Your task to perform on an android device: delete the emails in spam in the gmail app Image 0: 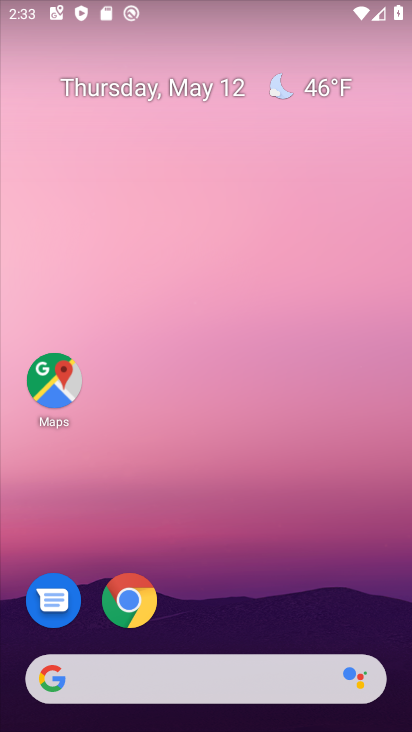
Step 0: drag from (238, 609) to (296, 218)
Your task to perform on an android device: delete the emails in spam in the gmail app Image 1: 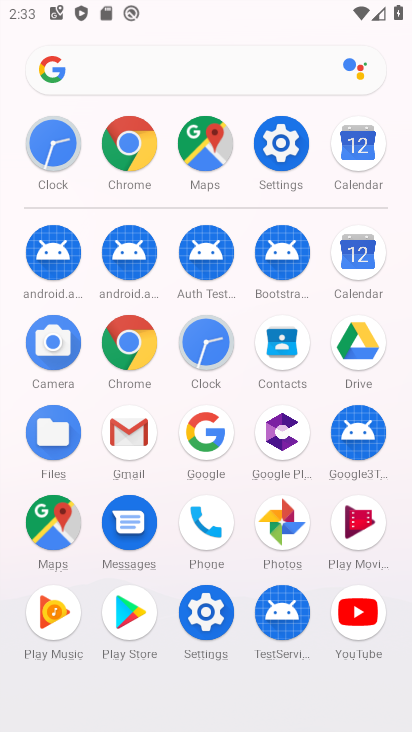
Step 1: click (147, 428)
Your task to perform on an android device: delete the emails in spam in the gmail app Image 2: 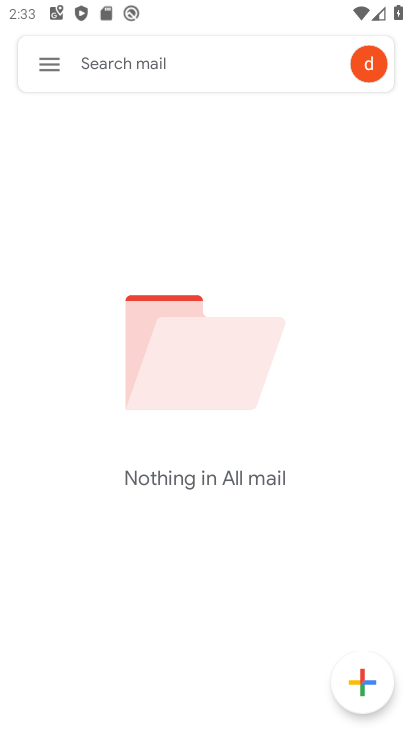
Step 2: click (66, 71)
Your task to perform on an android device: delete the emails in spam in the gmail app Image 3: 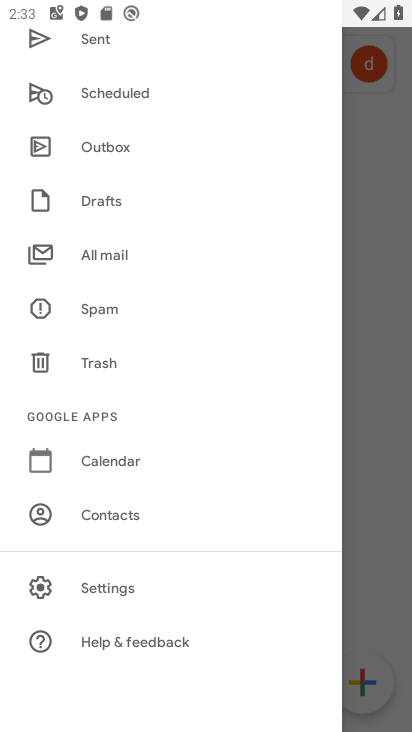
Step 3: click (94, 323)
Your task to perform on an android device: delete the emails in spam in the gmail app Image 4: 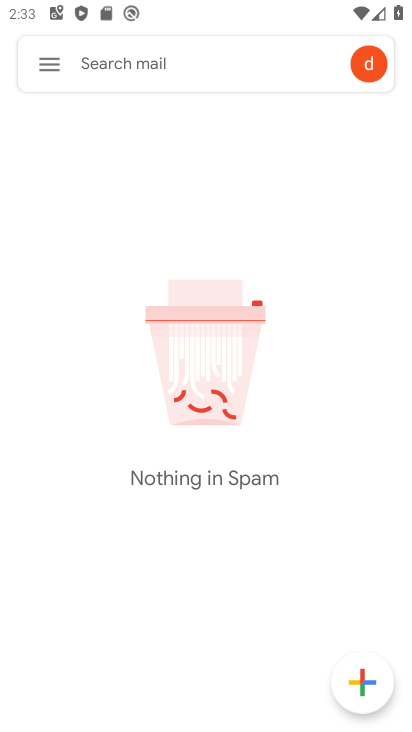
Step 4: task complete